Your task to perform on an android device: Go to settings Image 0: 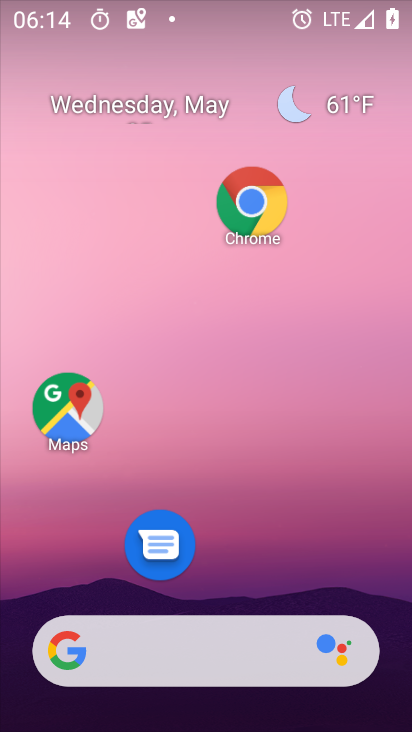
Step 0: drag from (201, 621) to (233, 294)
Your task to perform on an android device: Go to settings Image 1: 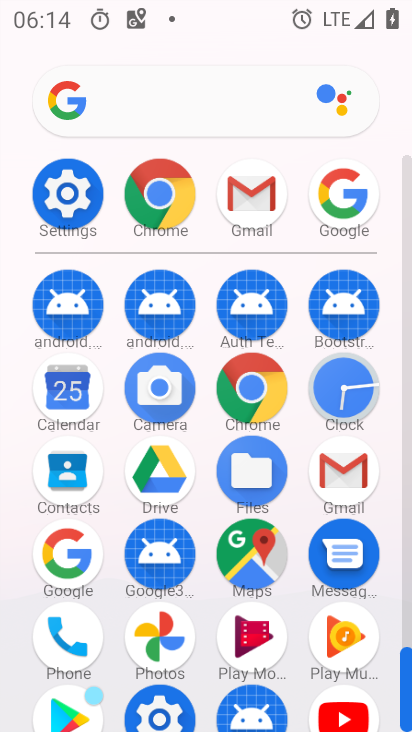
Step 1: click (168, 706)
Your task to perform on an android device: Go to settings Image 2: 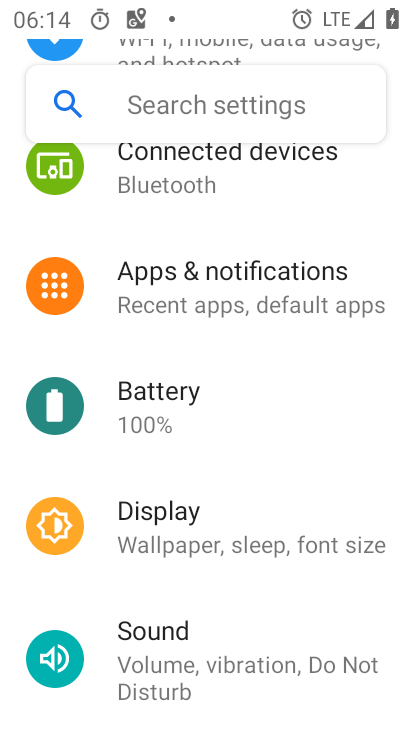
Step 2: task complete